Your task to perform on an android device: open app "WhatsApp Messenger" (install if not already installed) and enter user name: "cartons@outlook.com" and password: "approximated" Image 0: 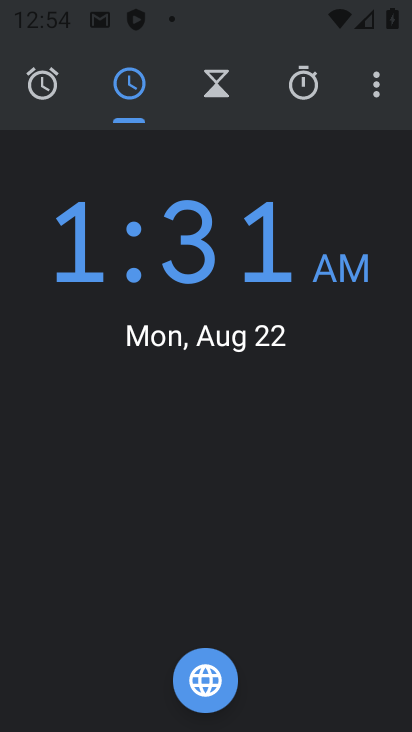
Step 0: press back button
Your task to perform on an android device: open app "WhatsApp Messenger" (install if not already installed) and enter user name: "cartons@outlook.com" and password: "approximated" Image 1: 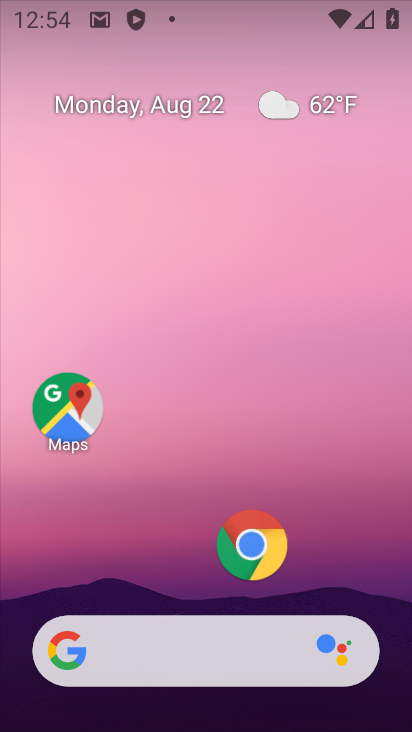
Step 1: drag from (134, 519) to (234, 27)
Your task to perform on an android device: open app "WhatsApp Messenger" (install if not already installed) and enter user name: "cartons@outlook.com" and password: "approximated" Image 2: 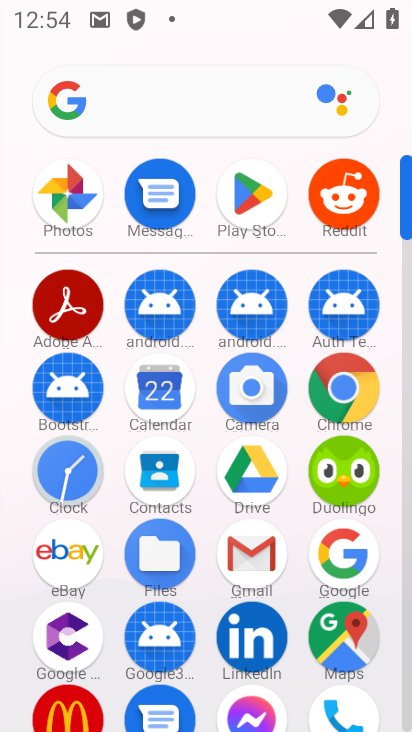
Step 2: click (257, 188)
Your task to perform on an android device: open app "WhatsApp Messenger" (install if not already installed) and enter user name: "cartons@outlook.com" and password: "approximated" Image 3: 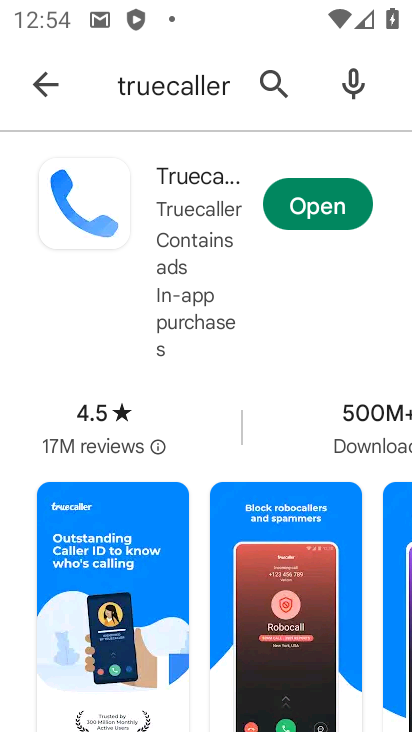
Step 3: click (279, 84)
Your task to perform on an android device: open app "WhatsApp Messenger" (install if not already installed) and enter user name: "cartons@outlook.com" and password: "approximated" Image 4: 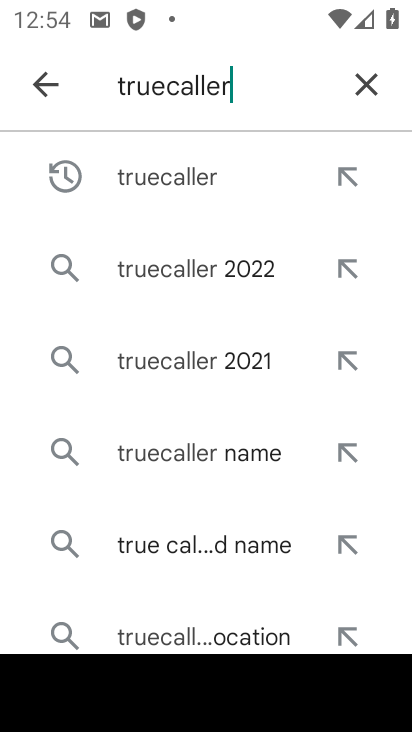
Step 4: click (357, 92)
Your task to perform on an android device: open app "WhatsApp Messenger" (install if not already installed) and enter user name: "cartons@outlook.com" and password: "approximated" Image 5: 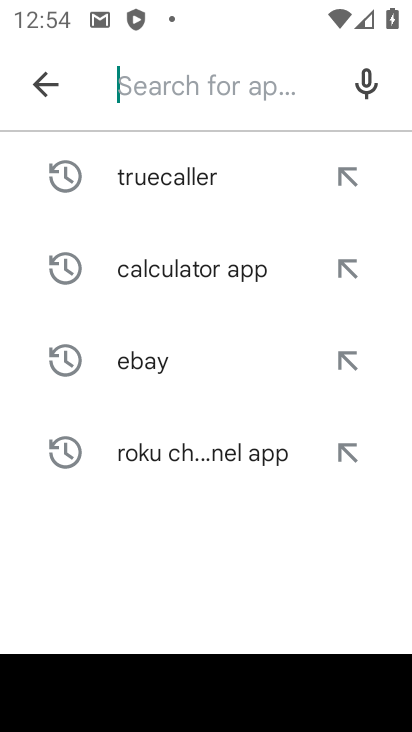
Step 5: click (158, 83)
Your task to perform on an android device: open app "WhatsApp Messenger" (install if not already installed) and enter user name: "cartons@outlook.com" and password: "approximated" Image 6: 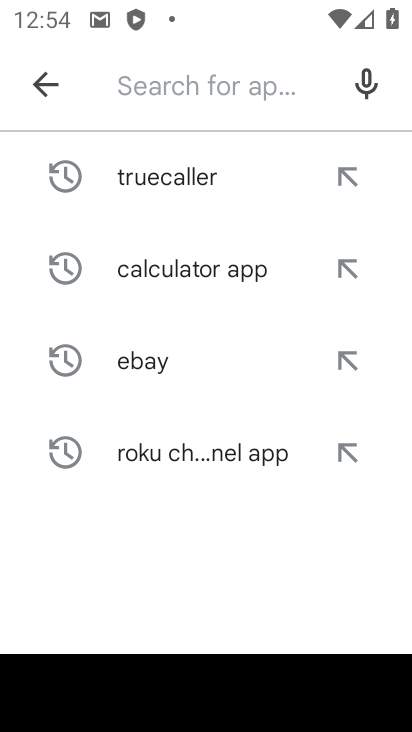
Step 6: type "WhatsApp Messenger"
Your task to perform on an android device: open app "WhatsApp Messenger" (install if not already installed) and enter user name: "cartons@outlook.com" and password: "approximated" Image 7: 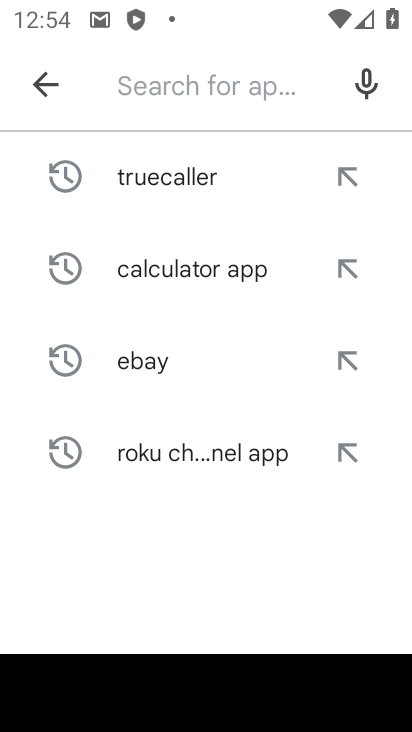
Step 7: click (108, 594)
Your task to perform on an android device: open app "WhatsApp Messenger" (install if not already installed) and enter user name: "cartons@outlook.com" and password: "approximated" Image 8: 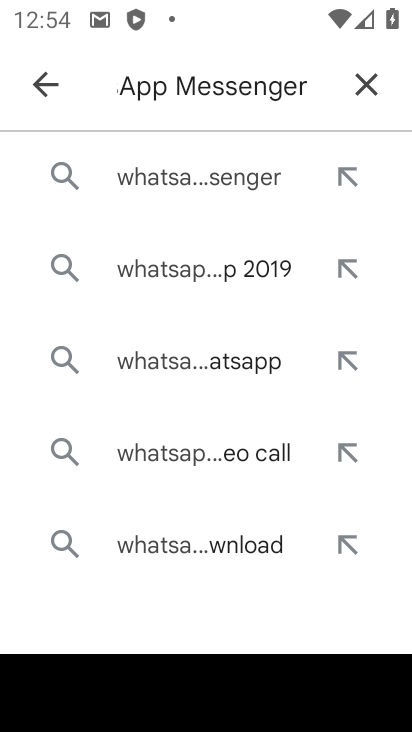
Step 8: click (243, 189)
Your task to perform on an android device: open app "WhatsApp Messenger" (install if not already installed) and enter user name: "cartons@outlook.com" and password: "approximated" Image 9: 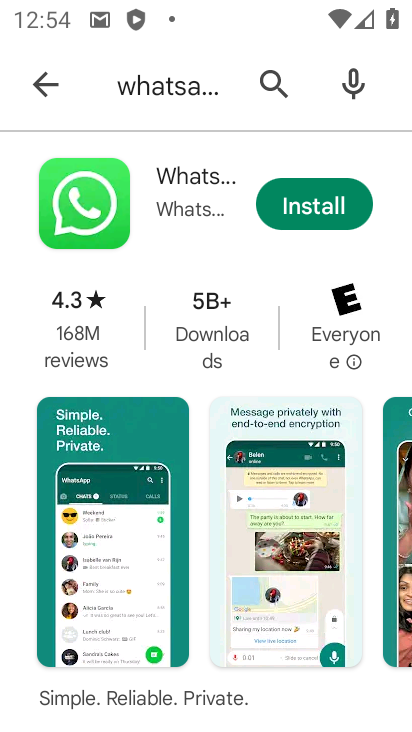
Step 9: click (323, 205)
Your task to perform on an android device: open app "WhatsApp Messenger" (install if not already installed) and enter user name: "cartons@outlook.com" and password: "approximated" Image 10: 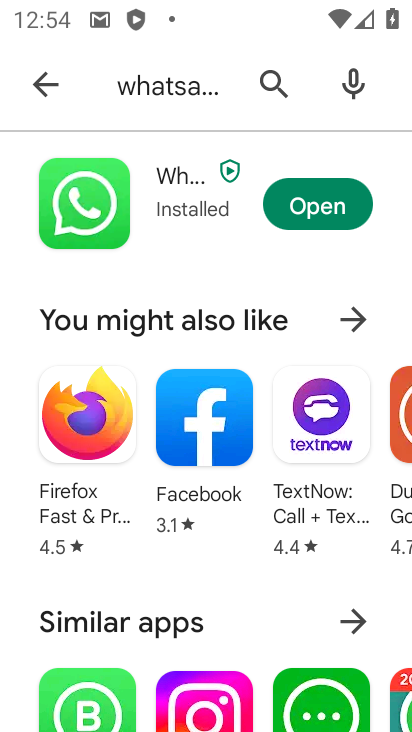
Step 10: click (321, 210)
Your task to perform on an android device: open app "WhatsApp Messenger" (install if not already installed) and enter user name: "cartons@outlook.com" and password: "approximated" Image 11: 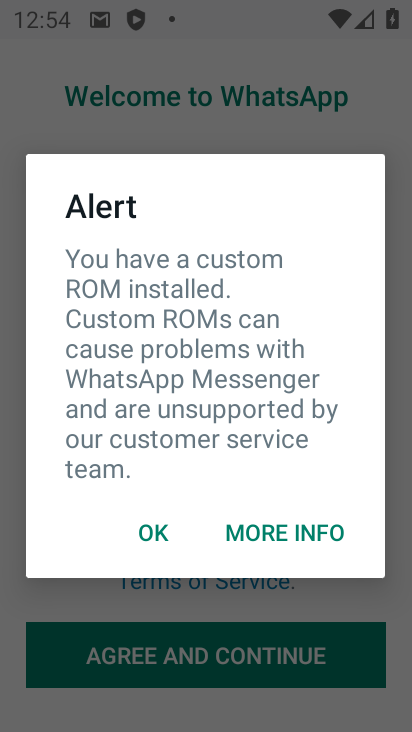
Step 11: click (249, 656)
Your task to perform on an android device: open app "WhatsApp Messenger" (install if not already installed) and enter user name: "cartons@outlook.com" and password: "approximated" Image 12: 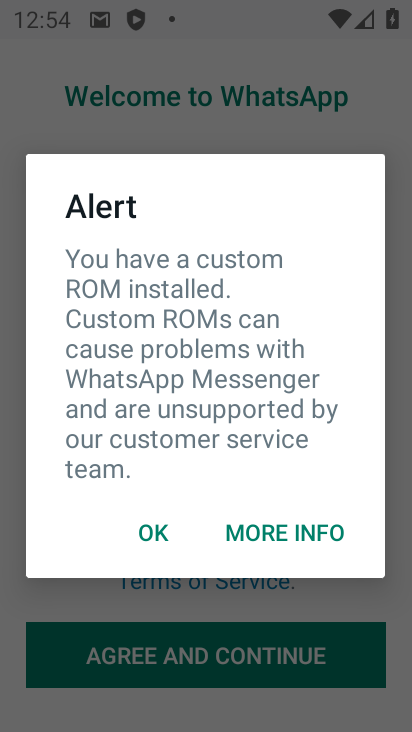
Step 12: click (164, 548)
Your task to perform on an android device: open app "WhatsApp Messenger" (install if not already installed) and enter user name: "cartons@outlook.com" and password: "approximated" Image 13: 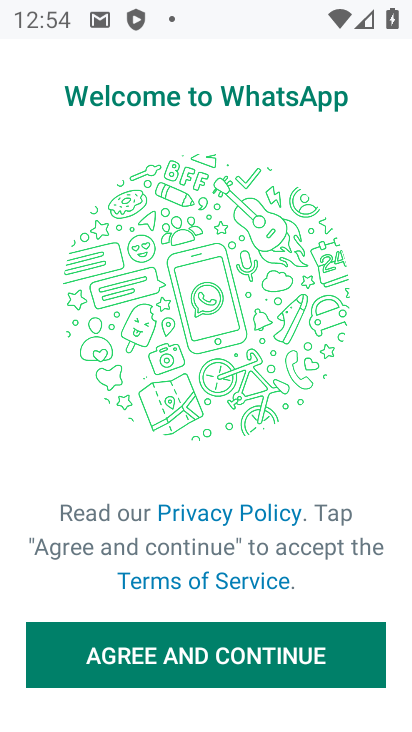
Step 13: click (158, 650)
Your task to perform on an android device: open app "WhatsApp Messenger" (install if not already installed) and enter user name: "cartons@outlook.com" and password: "approximated" Image 14: 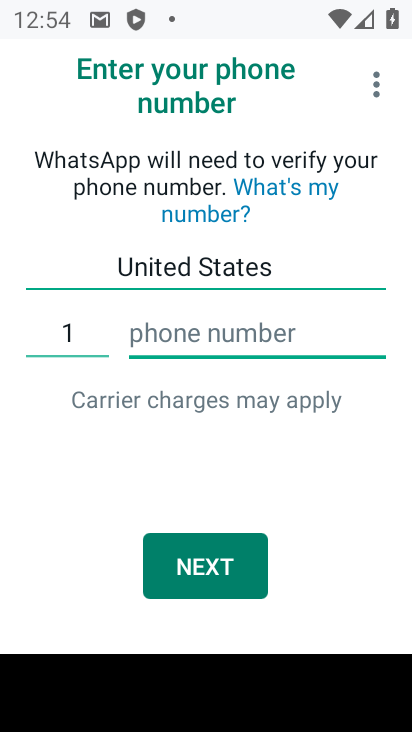
Step 14: task complete